Your task to perform on an android device: refresh tabs in the chrome app Image 0: 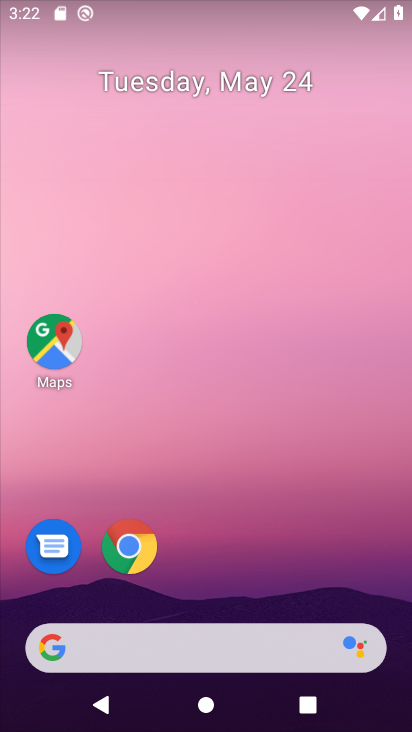
Step 0: drag from (175, 602) to (278, 107)
Your task to perform on an android device: refresh tabs in the chrome app Image 1: 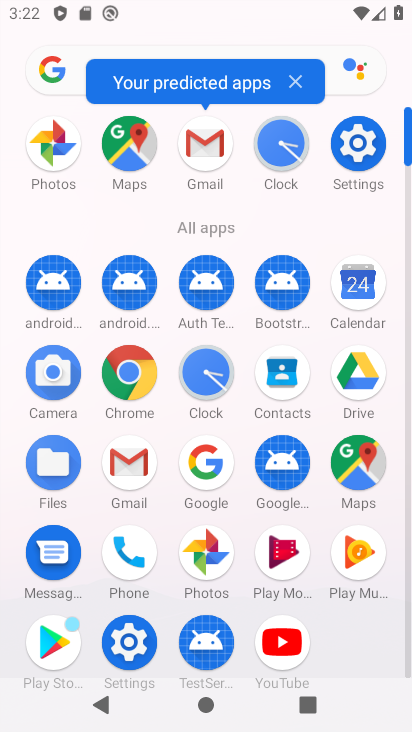
Step 1: click (127, 388)
Your task to perform on an android device: refresh tabs in the chrome app Image 2: 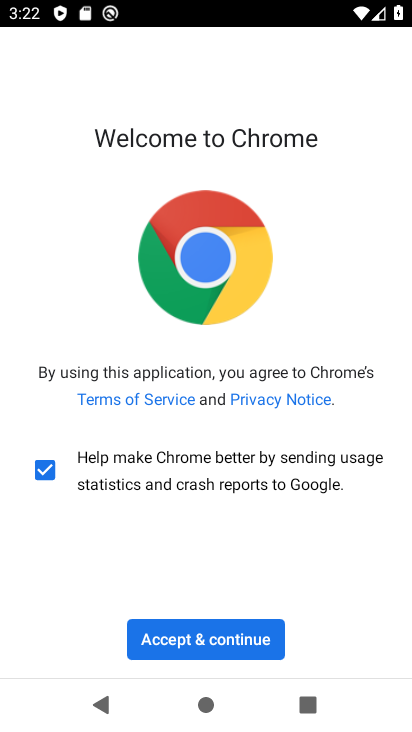
Step 2: click (223, 648)
Your task to perform on an android device: refresh tabs in the chrome app Image 3: 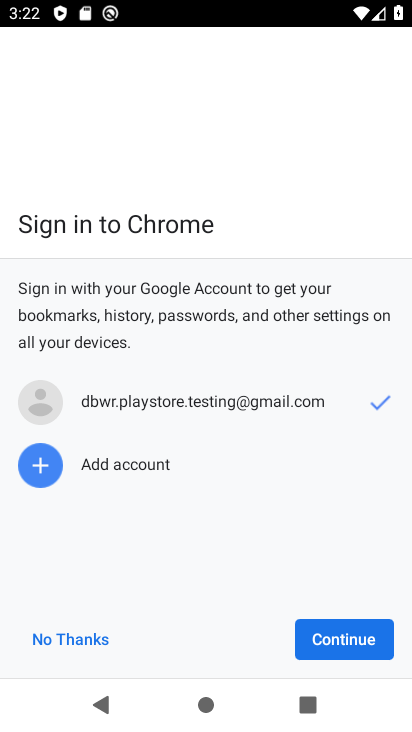
Step 3: click (338, 634)
Your task to perform on an android device: refresh tabs in the chrome app Image 4: 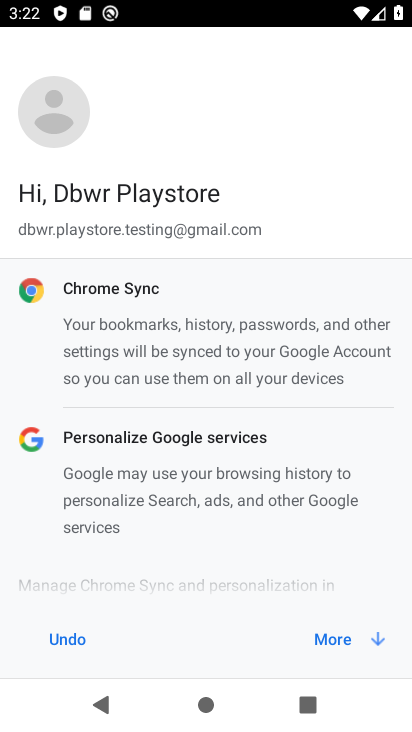
Step 4: click (338, 639)
Your task to perform on an android device: refresh tabs in the chrome app Image 5: 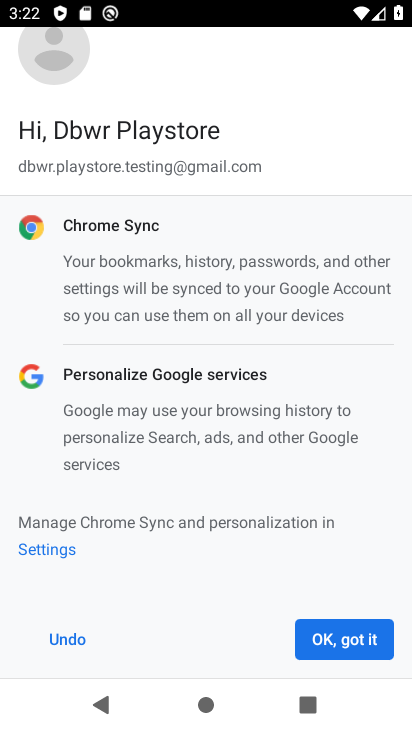
Step 5: click (339, 642)
Your task to perform on an android device: refresh tabs in the chrome app Image 6: 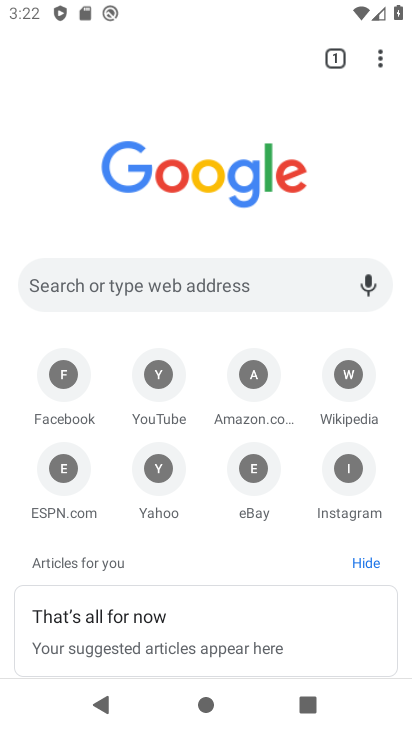
Step 6: click (379, 64)
Your task to perform on an android device: refresh tabs in the chrome app Image 7: 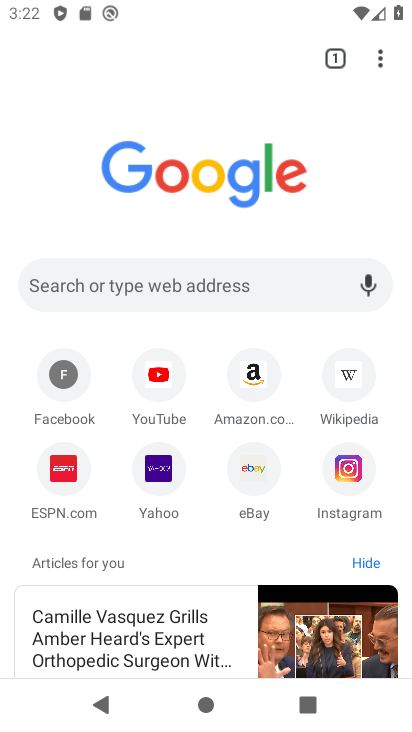
Step 7: task complete